Your task to perform on an android device: Open the web browser Image 0: 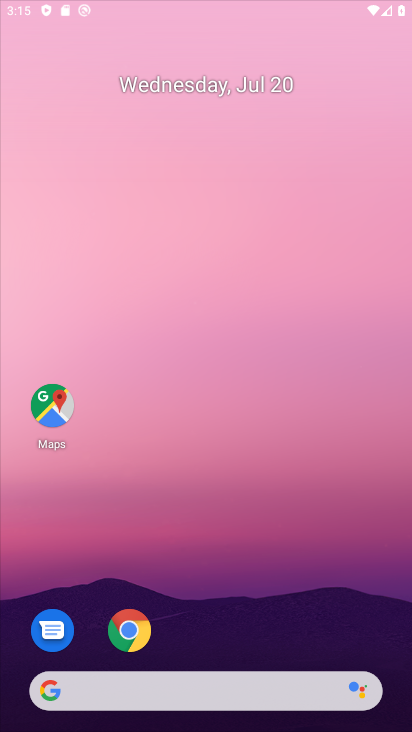
Step 0: press home button
Your task to perform on an android device: Open the web browser Image 1: 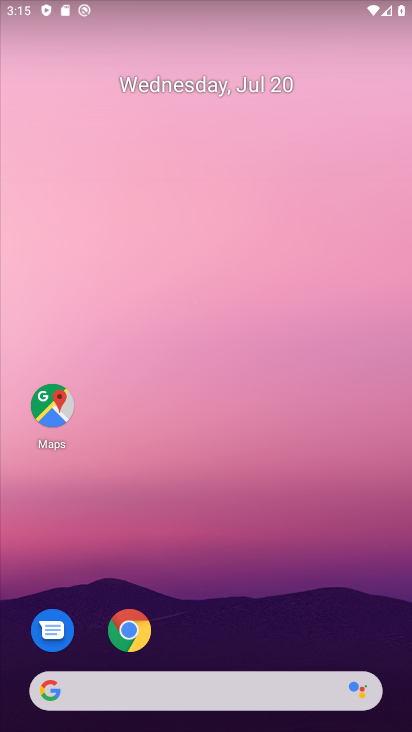
Step 1: click (42, 691)
Your task to perform on an android device: Open the web browser Image 2: 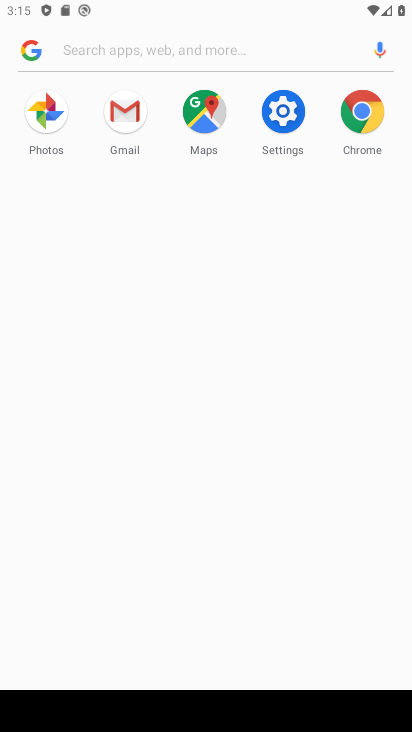
Step 2: task complete